Your task to perform on an android device: Open the map Image 0: 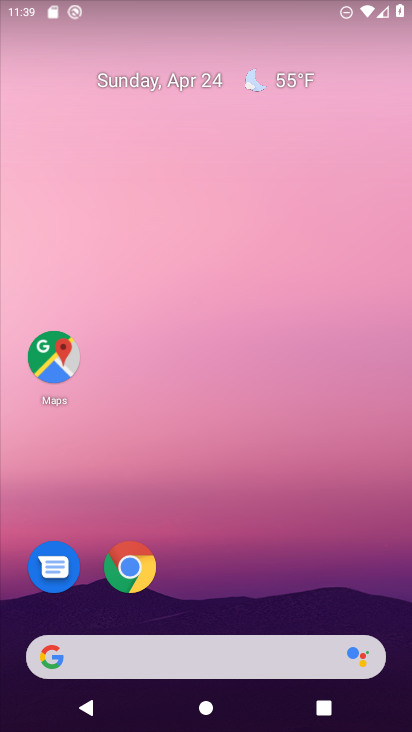
Step 0: click (57, 341)
Your task to perform on an android device: Open the map Image 1: 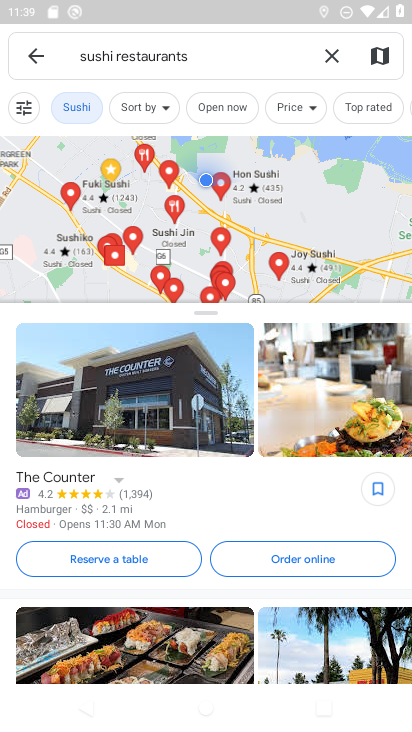
Step 1: task complete